Your task to perform on an android device: Open calendar and show me the first week of next month Image 0: 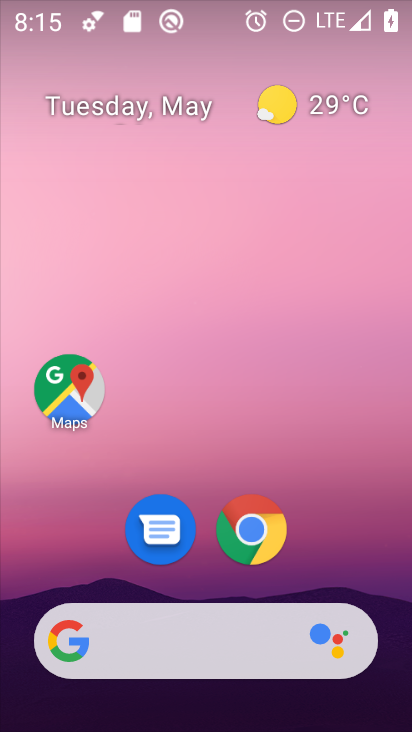
Step 0: drag from (400, 642) to (261, 109)
Your task to perform on an android device: Open calendar and show me the first week of next month Image 1: 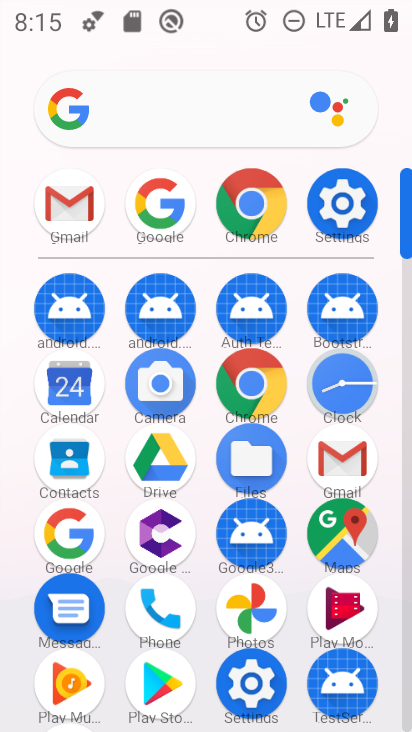
Step 1: click (67, 389)
Your task to perform on an android device: Open calendar and show me the first week of next month Image 2: 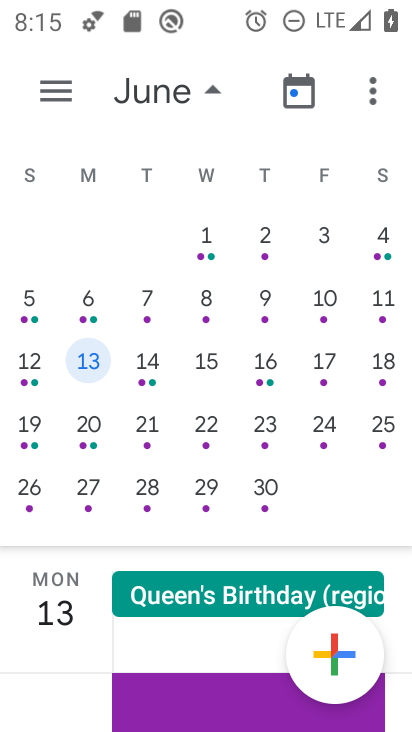
Step 2: drag from (375, 399) to (53, 426)
Your task to perform on an android device: Open calendar and show me the first week of next month Image 3: 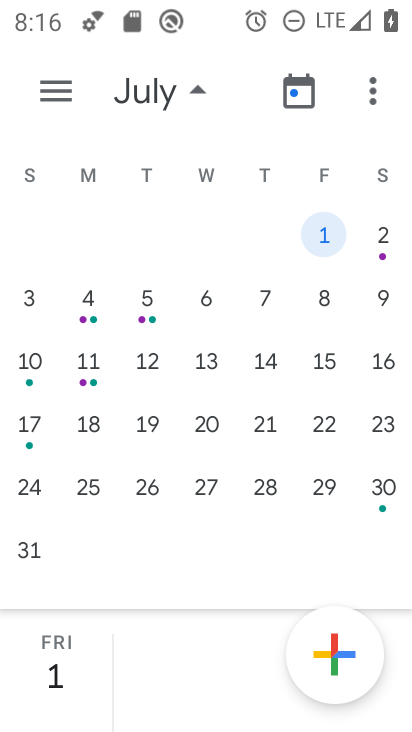
Step 3: click (89, 309)
Your task to perform on an android device: Open calendar and show me the first week of next month Image 4: 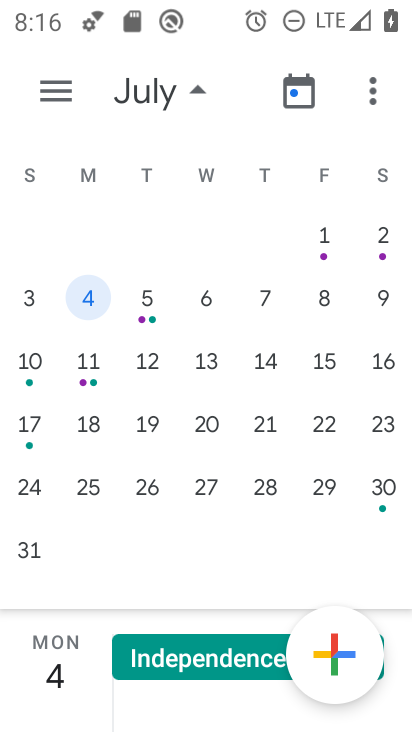
Step 4: task complete